Your task to perform on an android device: Go to calendar. Show me events next week Image 0: 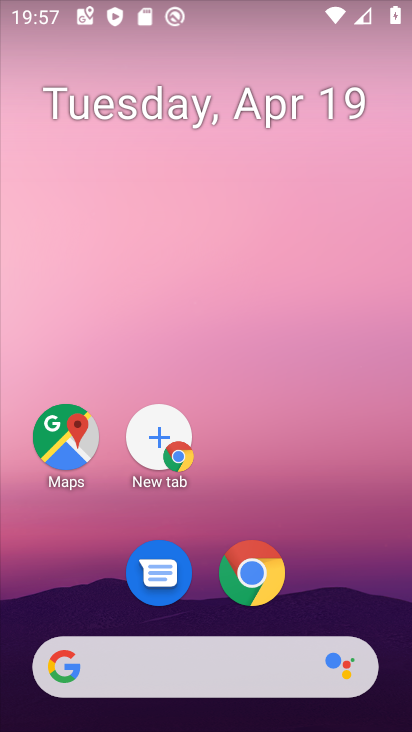
Step 0: drag from (333, 398) to (303, 83)
Your task to perform on an android device: Go to calendar. Show me events next week Image 1: 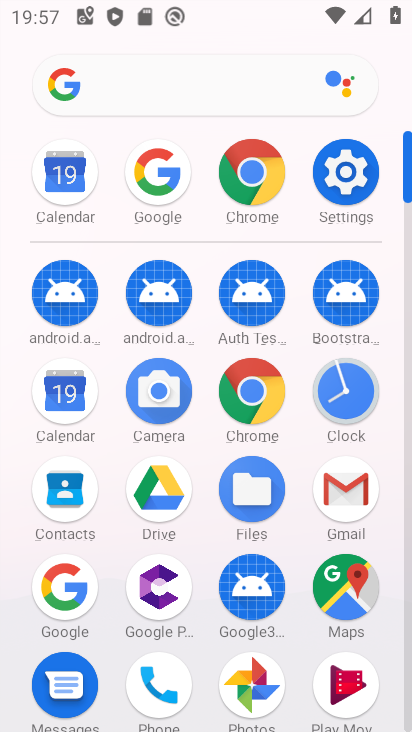
Step 1: click (60, 401)
Your task to perform on an android device: Go to calendar. Show me events next week Image 2: 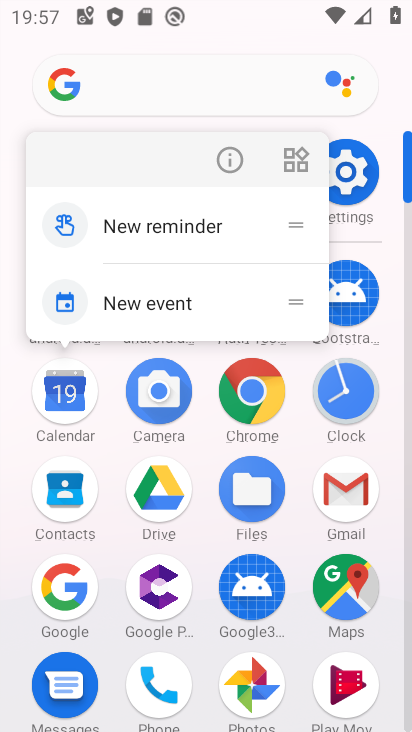
Step 2: click (57, 396)
Your task to perform on an android device: Go to calendar. Show me events next week Image 3: 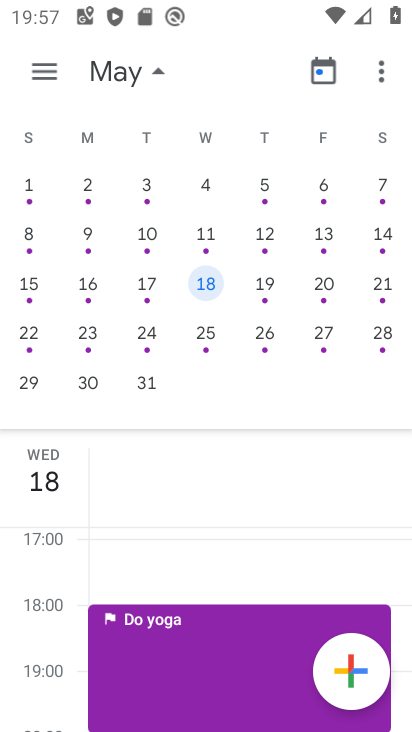
Step 3: drag from (102, 244) to (391, 184)
Your task to perform on an android device: Go to calendar. Show me events next week Image 4: 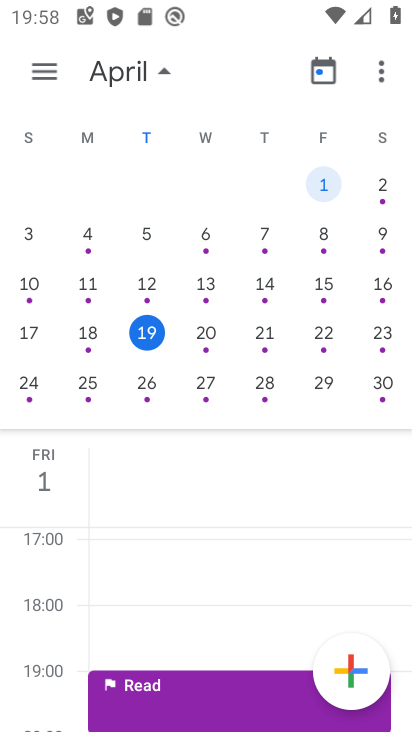
Step 4: click (151, 378)
Your task to perform on an android device: Go to calendar. Show me events next week Image 5: 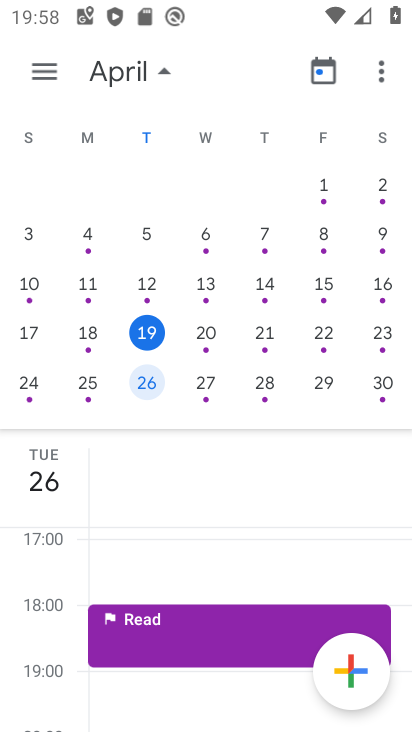
Step 5: task complete